Your task to perform on an android device: open a bookmark in the chrome app Image 0: 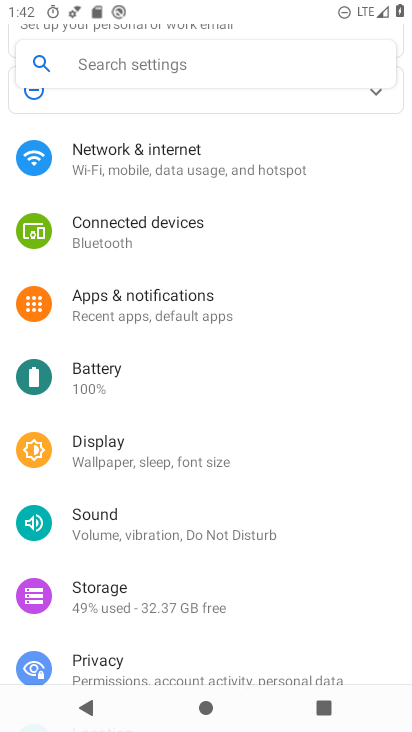
Step 0: press home button
Your task to perform on an android device: open a bookmark in the chrome app Image 1: 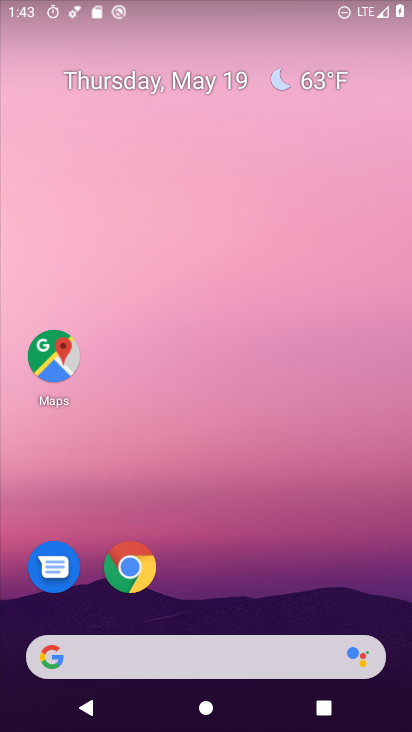
Step 1: click (129, 570)
Your task to perform on an android device: open a bookmark in the chrome app Image 2: 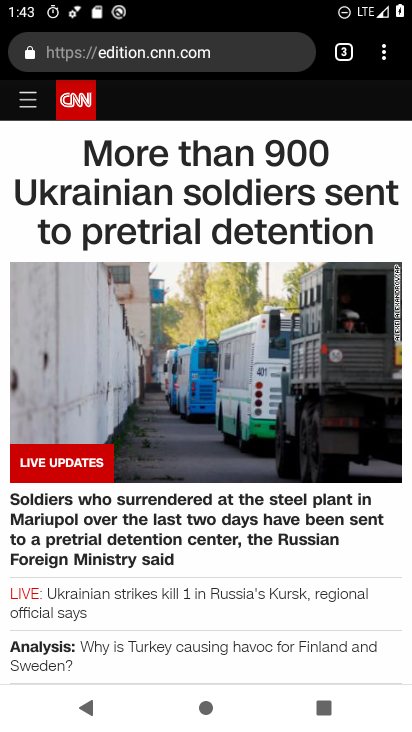
Step 2: task complete